Your task to perform on an android device: Open Maps and search for coffee Image 0: 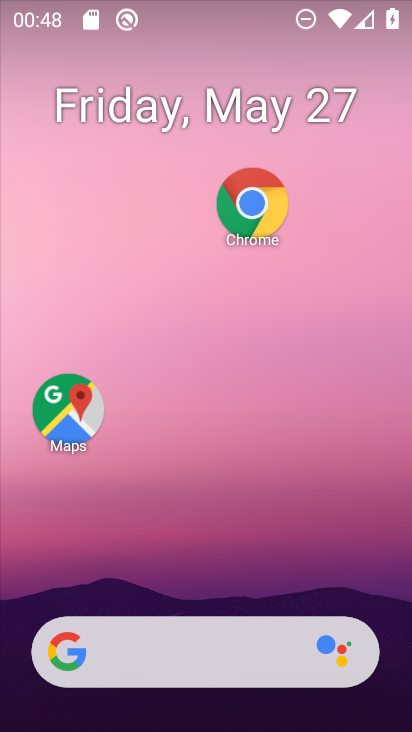
Step 0: drag from (181, 543) to (249, 83)
Your task to perform on an android device: Open Maps and search for coffee Image 1: 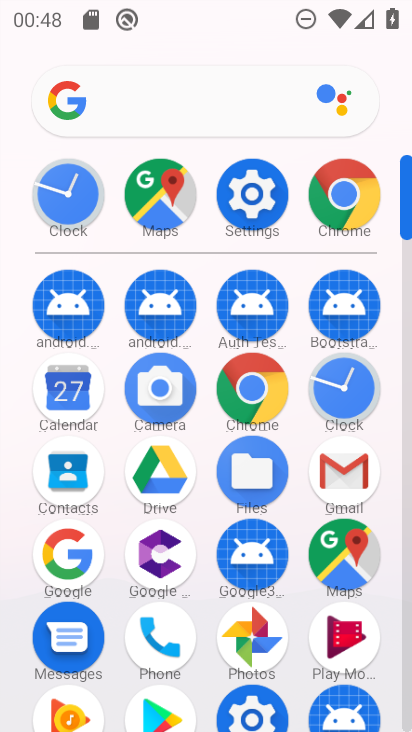
Step 1: click (336, 547)
Your task to perform on an android device: Open Maps and search for coffee Image 2: 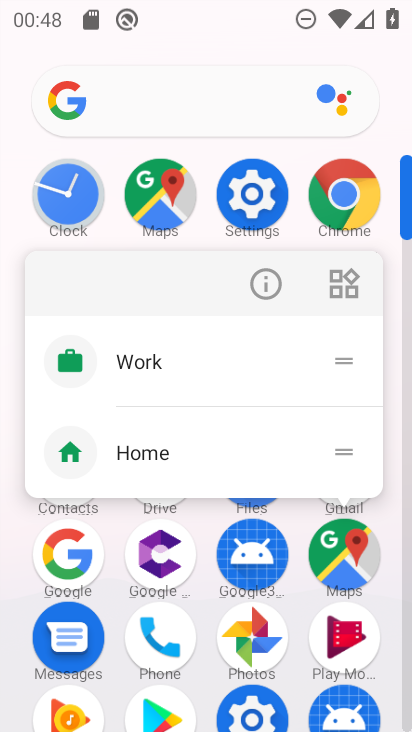
Step 2: click (263, 275)
Your task to perform on an android device: Open Maps and search for coffee Image 3: 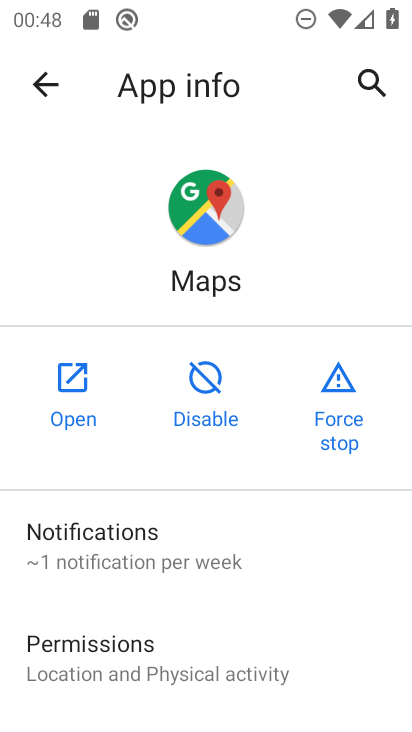
Step 3: click (78, 371)
Your task to perform on an android device: Open Maps and search for coffee Image 4: 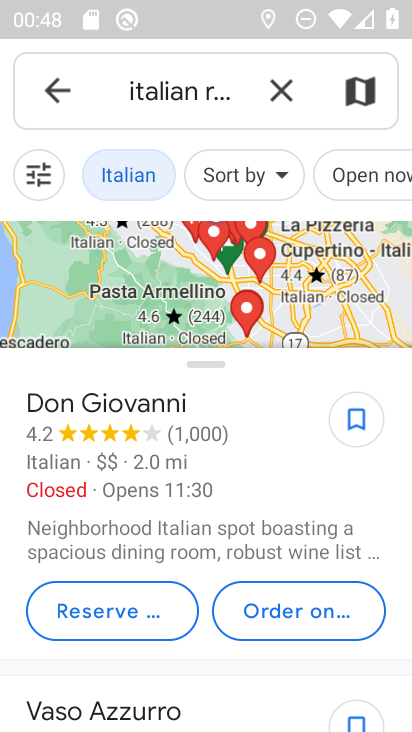
Step 4: drag from (217, 721) to (215, 255)
Your task to perform on an android device: Open Maps and search for coffee Image 5: 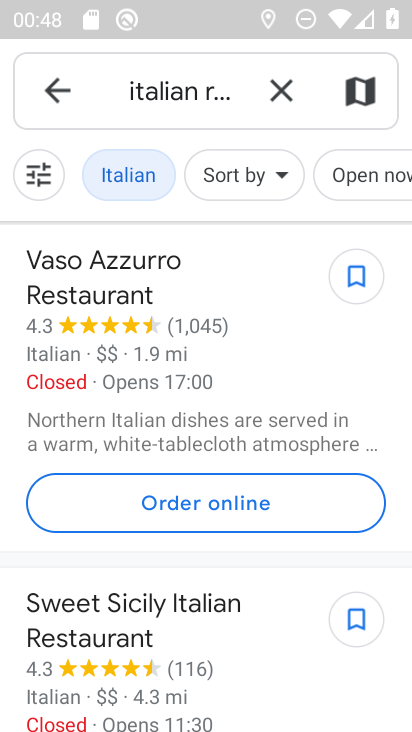
Step 5: click (252, 73)
Your task to perform on an android device: Open Maps and search for coffee Image 6: 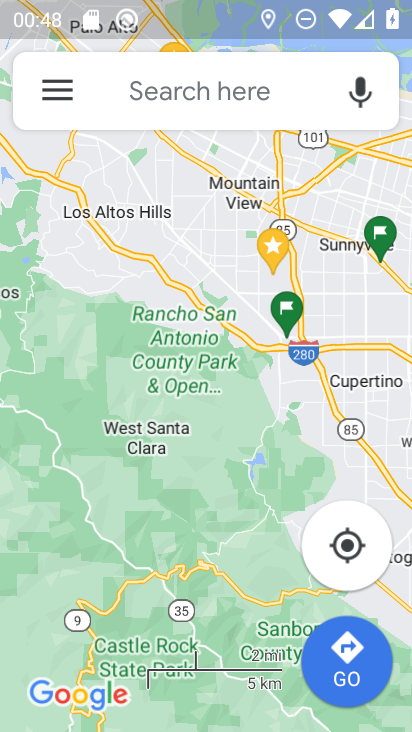
Step 6: click (246, 102)
Your task to perform on an android device: Open Maps and search for coffee Image 7: 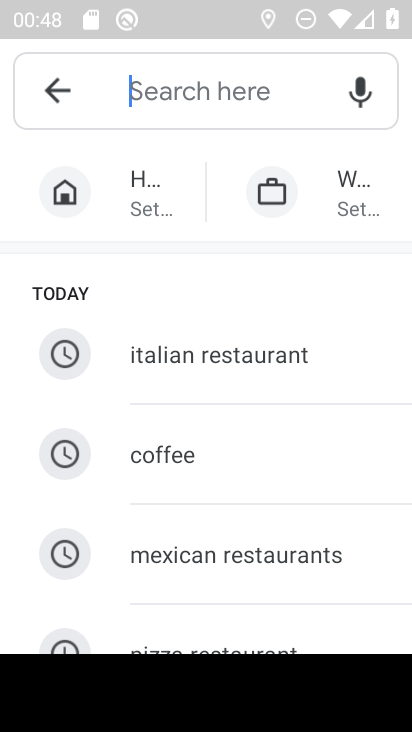
Step 7: click (219, 420)
Your task to perform on an android device: Open Maps and search for coffee Image 8: 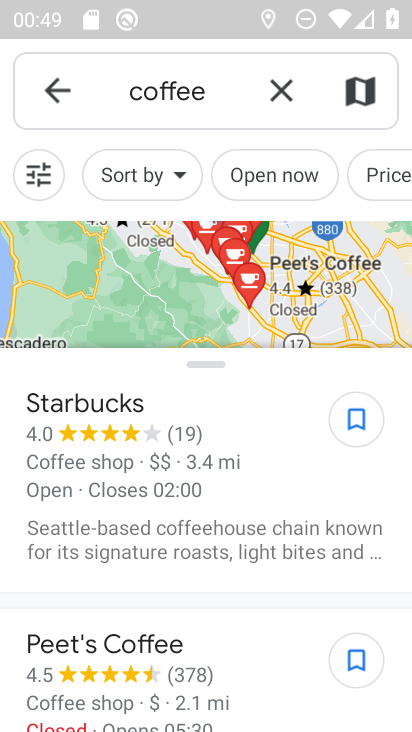
Step 8: task complete